Your task to perform on an android device: change notification settings in the gmail app Image 0: 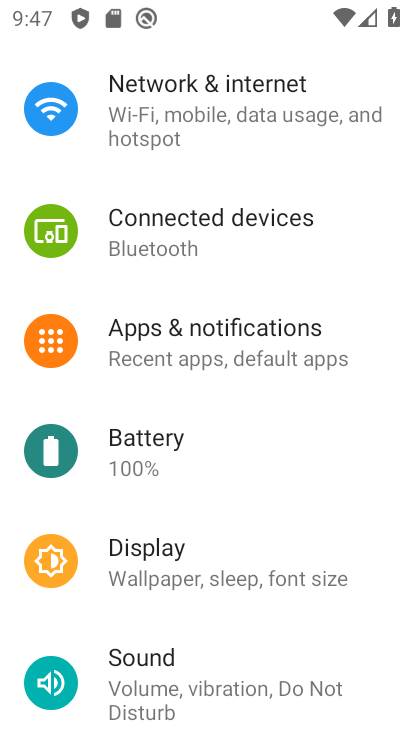
Step 0: click (222, 347)
Your task to perform on an android device: change notification settings in the gmail app Image 1: 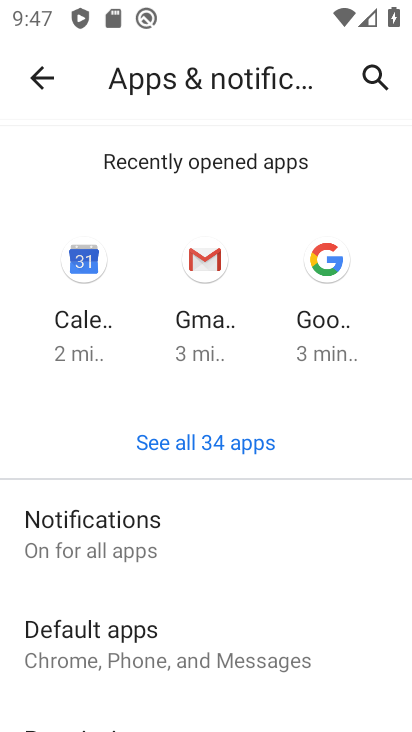
Step 1: click (124, 543)
Your task to perform on an android device: change notification settings in the gmail app Image 2: 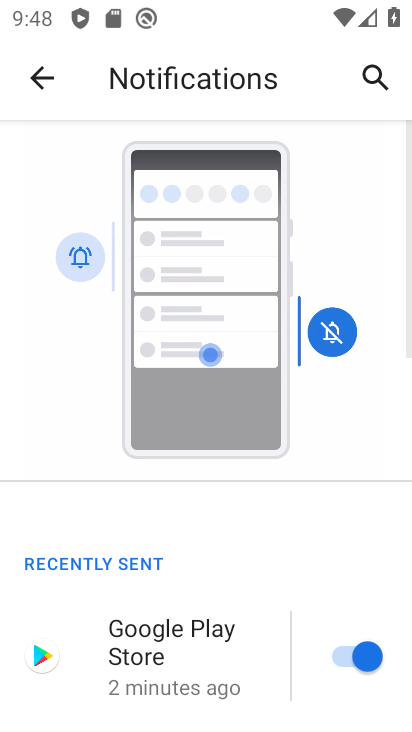
Step 2: drag from (161, 627) to (216, 314)
Your task to perform on an android device: change notification settings in the gmail app Image 3: 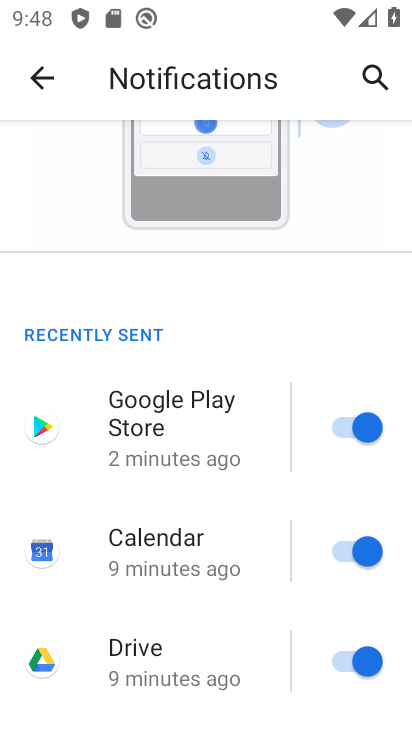
Step 3: drag from (138, 670) to (185, 306)
Your task to perform on an android device: change notification settings in the gmail app Image 4: 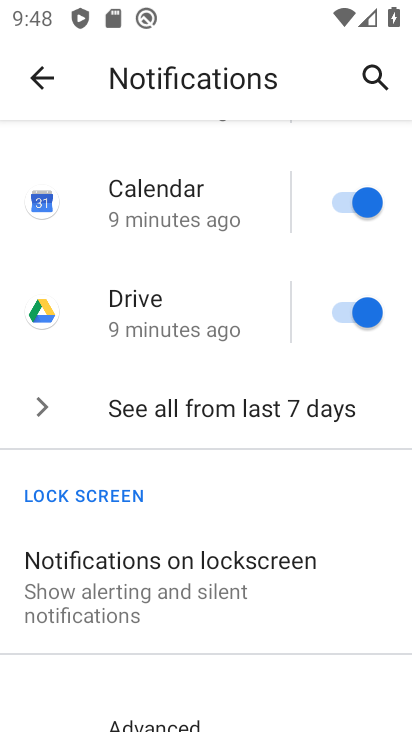
Step 4: drag from (192, 694) to (187, 339)
Your task to perform on an android device: change notification settings in the gmail app Image 5: 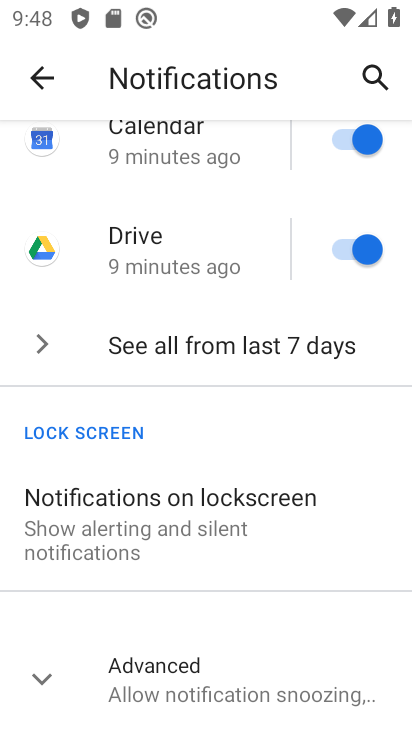
Step 5: drag from (196, 489) to (173, 383)
Your task to perform on an android device: change notification settings in the gmail app Image 6: 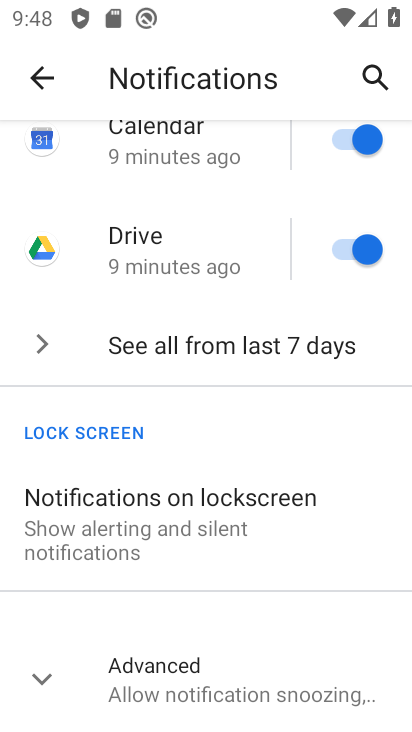
Step 6: drag from (283, 677) to (259, 302)
Your task to perform on an android device: change notification settings in the gmail app Image 7: 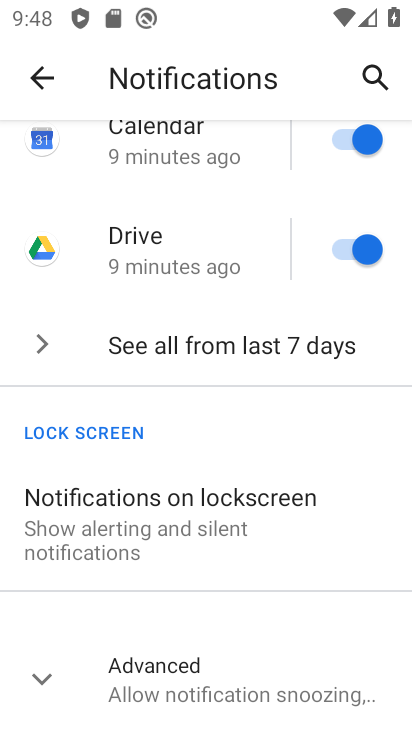
Step 7: drag from (247, 267) to (252, 699)
Your task to perform on an android device: change notification settings in the gmail app Image 8: 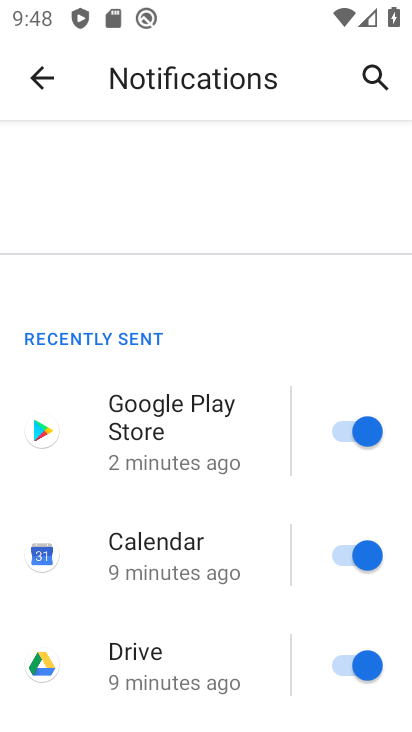
Step 8: drag from (206, 275) to (230, 643)
Your task to perform on an android device: change notification settings in the gmail app Image 9: 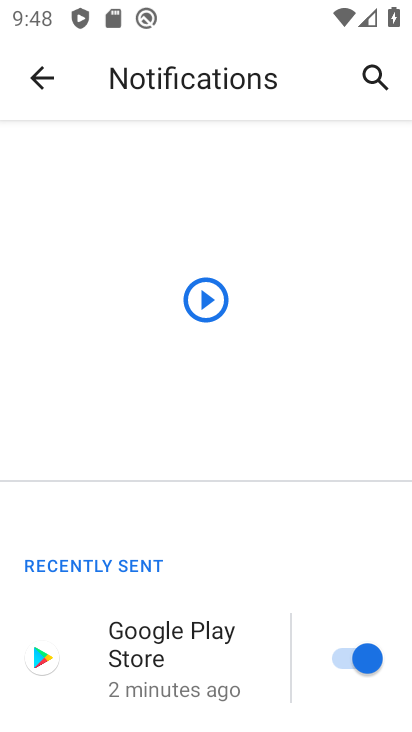
Step 9: drag from (191, 646) to (202, 201)
Your task to perform on an android device: change notification settings in the gmail app Image 10: 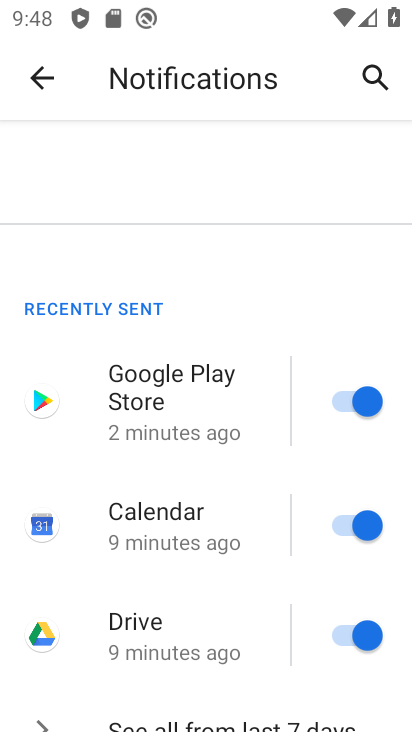
Step 10: drag from (227, 525) to (223, 110)
Your task to perform on an android device: change notification settings in the gmail app Image 11: 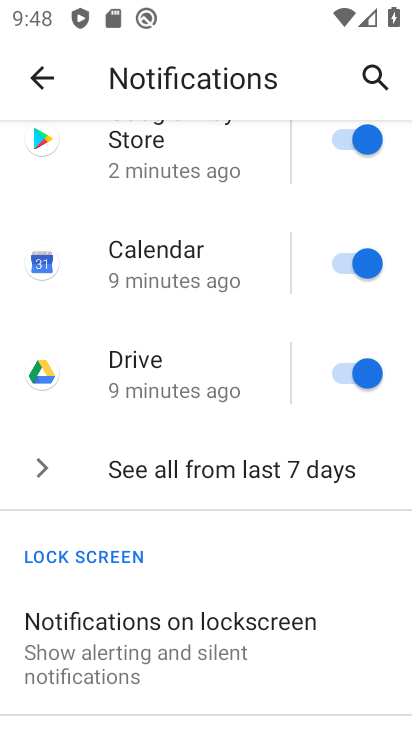
Step 11: drag from (196, 681) to (194, 149)
Your task to perform on an android device: change notification settings in the gmail app Image 12: 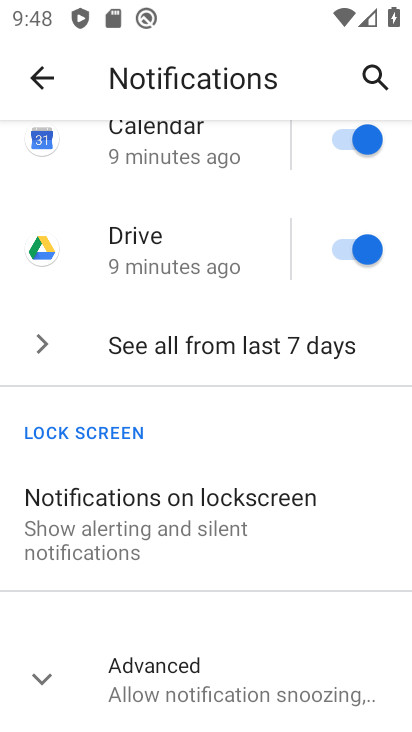
Step 12: click (219, 690)
Your task to perform on an android device: change notification settings in the gmail app Image 13: 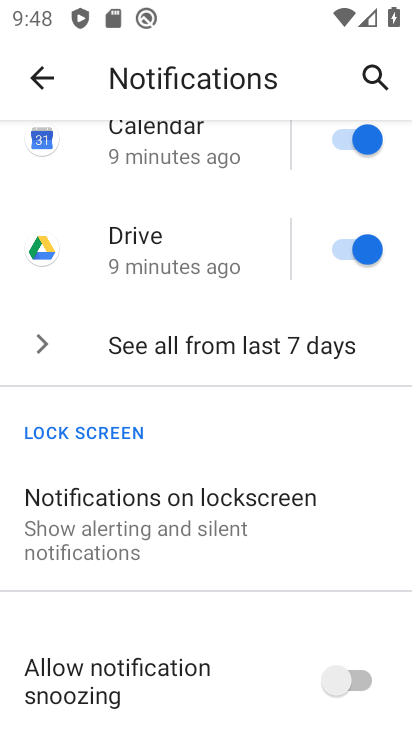
Step 13: click (379, 246)
Your task to perform on an android device: change notification settings in the gmail app Image 14: 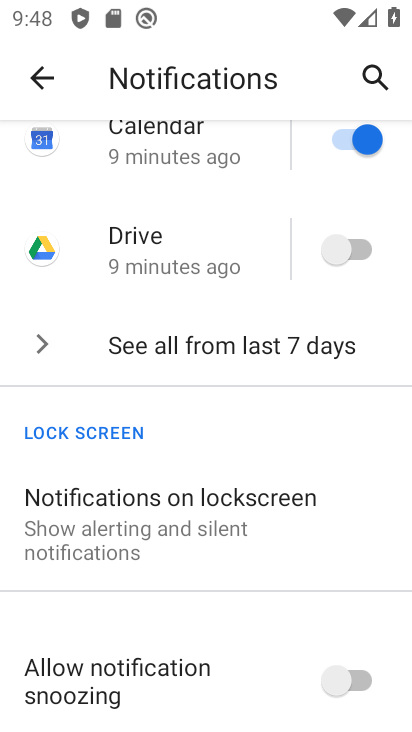
Step 14: task complete